Your task to perform on an android device: toggle data saver in the chrome app Image 0: 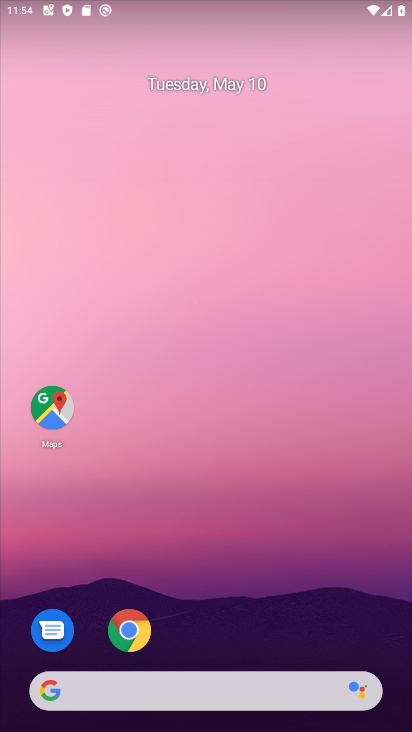
Step 0: click (127, 635)
Your task to perform on an android device: toggle data saver in the chrome app Image 1: 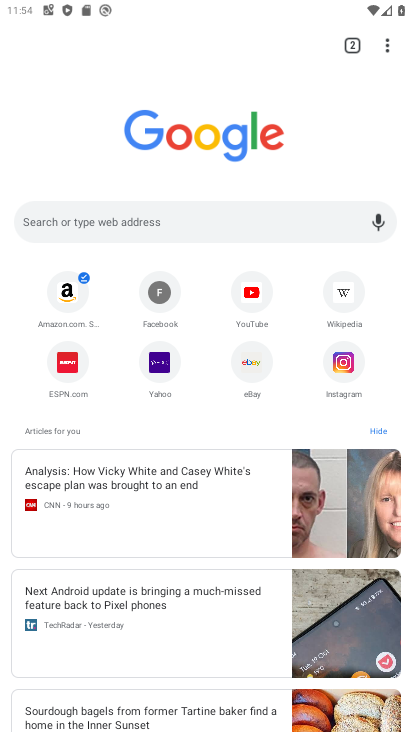
Step 1: drag from (387, 41) to (225, 379)
Your task to perform on an android device: toggle data saver in the chrome app Image 2: 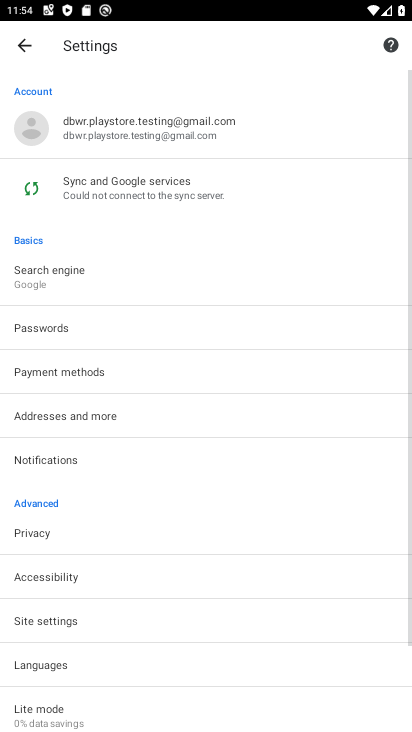
Step 2: drag from (172, 652) to (213, 444)
Your task to perform on an android device: toggle data saver in the chrome app Image 3: 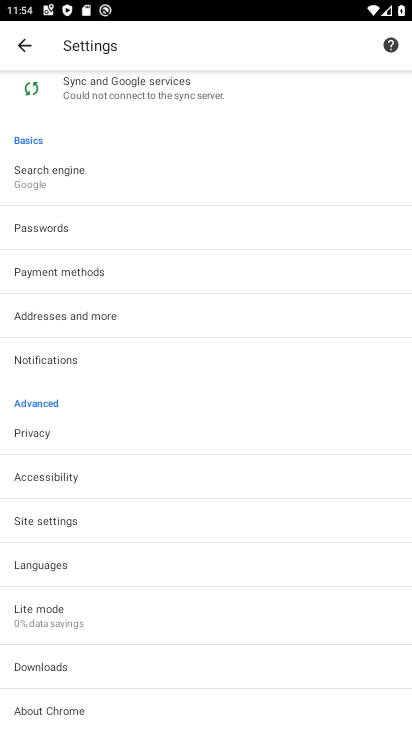
Step 3: click (67, 618)
Your task to perform on an android device: toggle data saver in the chrome app Image 4: 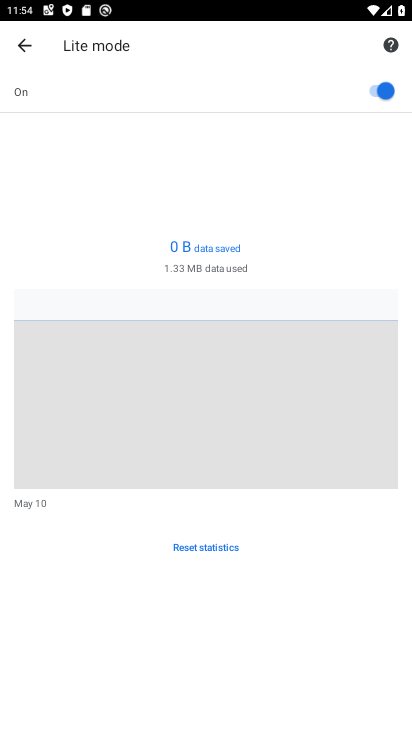
Step 4: click (378, 96)
Your task to perform on an android device: toggle data saver in the chrome app Image 5: 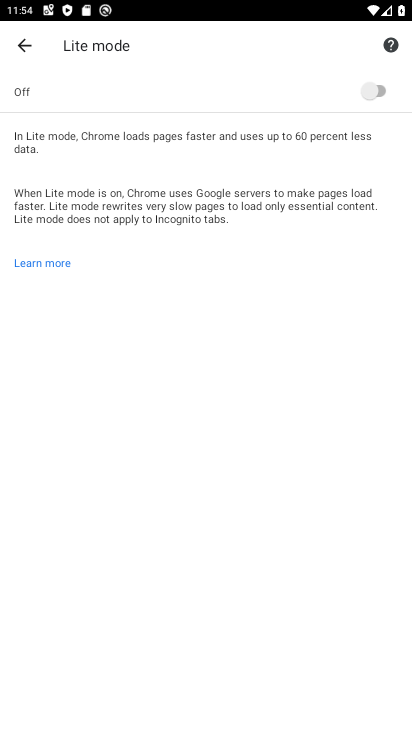
Step 5: task complete